Your task to perform on an android device: all mails in gmail Image 0: 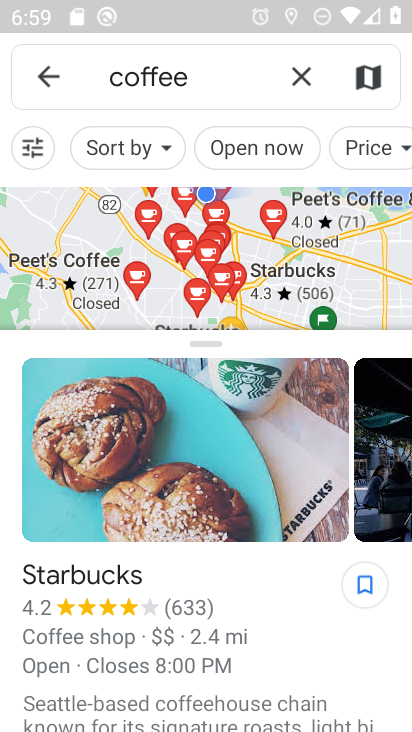
Step 0: press home button
Your task to perform on an android device: all mails in gmail Image 1: 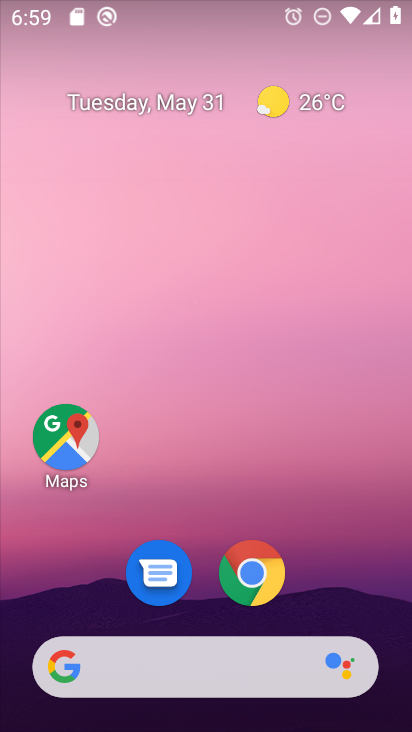
Step 1: drag from (386, 662) to (247, 47)
Your task to perform on an android device: all mails in gmail Image 2: 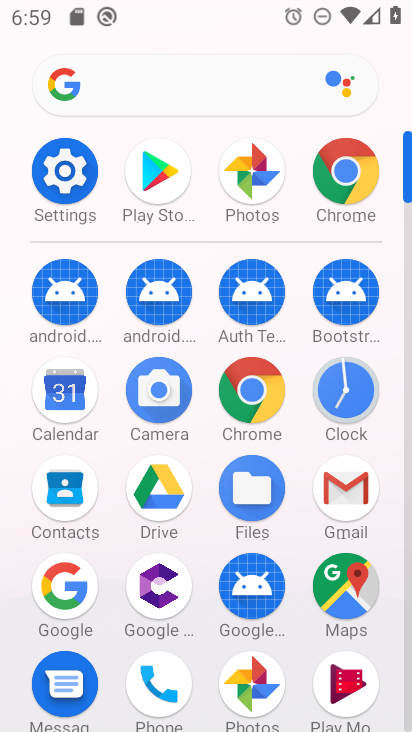
Step 2: click (333, 490)
Your task to perform on an android device: all mails in gmail Image 3: 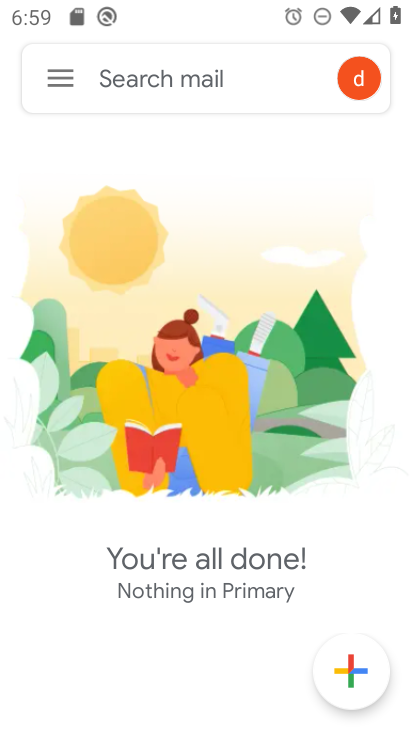
Step 3: click (68, 73)
Your task to perform on an android device: all mails in gmail Image 4: 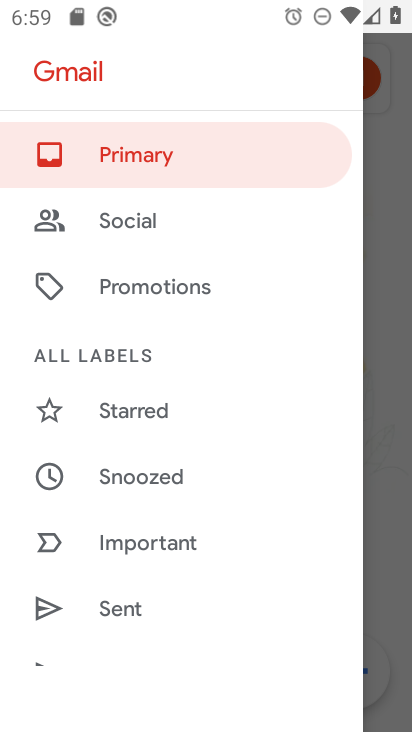
Step 4: drag from (126, 621) to (213, 121)
Your task to perform on an android device: all mails in gmail Image 5: 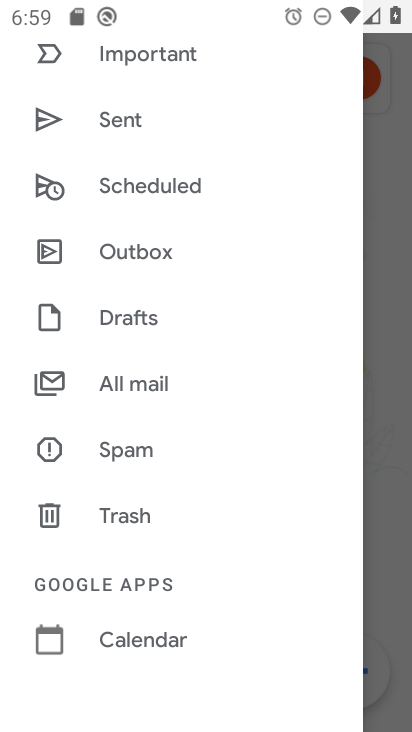
Step 5: click (136, 386)
Your task to perform on an android device: all mails in gmail Image 6: 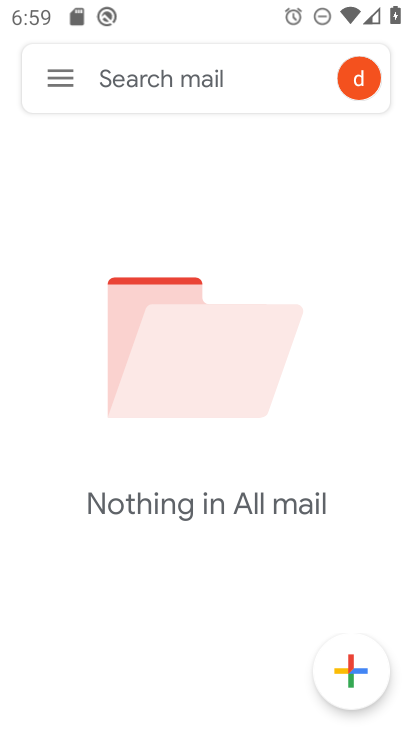
Step 6: task complete